Your task to perform on an android device: Open calendar and show me the second week of next month Image 0: 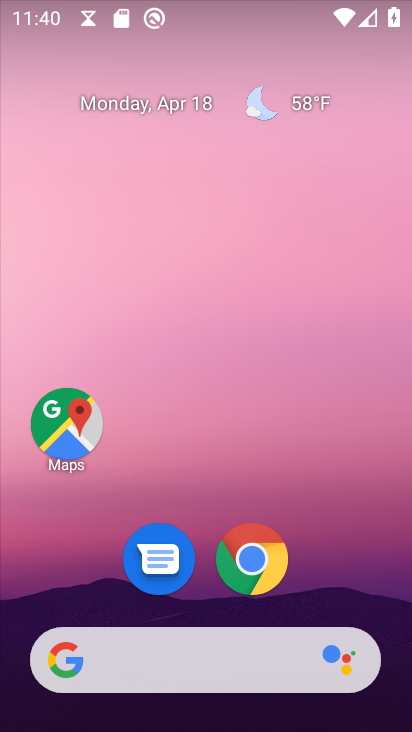
Step 0: drag from (348, 536) to (288, 47)
Your task to perform on an android device: Open calendar and show me the second week of next month Image 1: 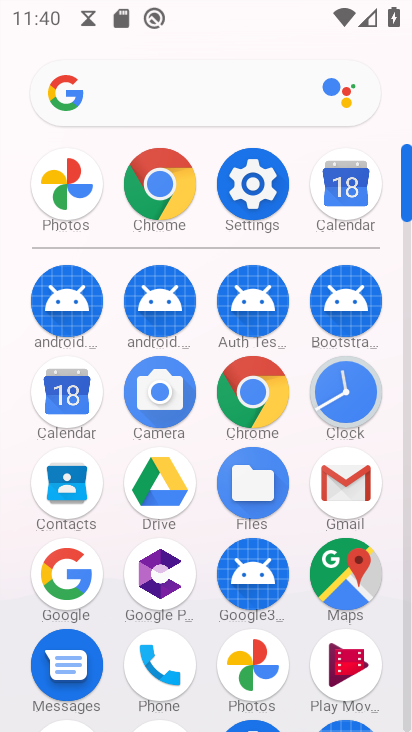
Step 1: click (346, 194)
Your task to perform on an android device: Open calendar and show me the second week of next month Image 2: 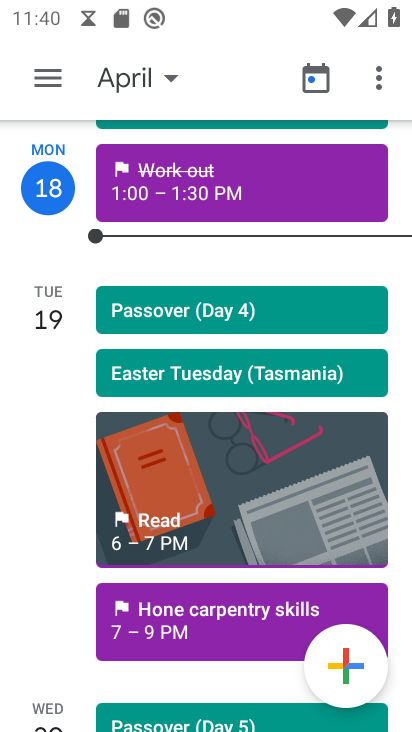
Step 2: click (49, 82)
Your task to perform on an android device: Open calendar and show me the second week of next month Image 3: 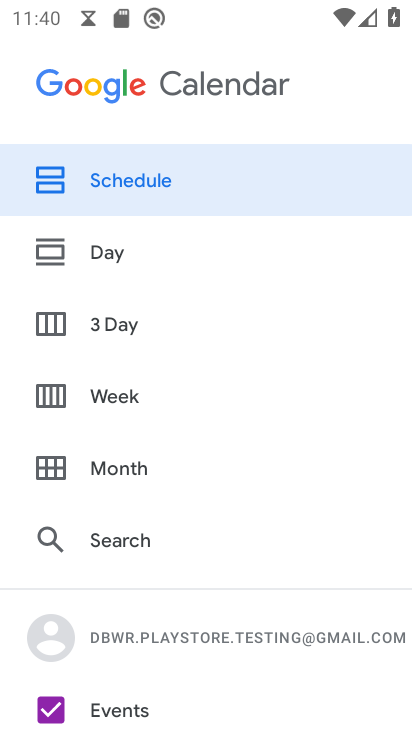
Step 3: click (105, 474)
Your task to perform on an android device: Open calendar and show me the second week of next month Image 4: 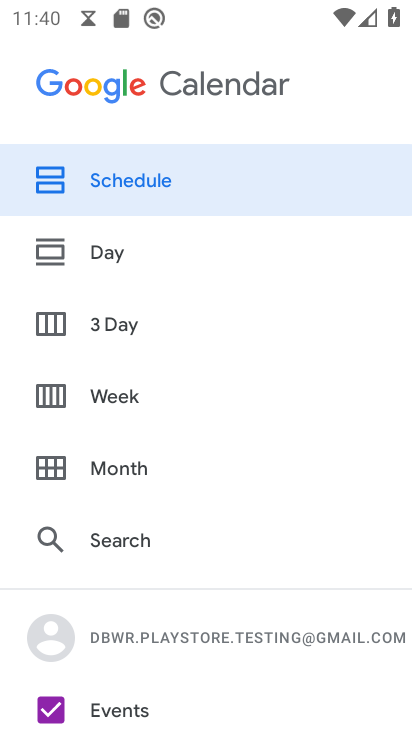
Step 4: click (47, 472)
Your task to perform on an android device: Open calendar and show me the second week of next month Image 5: 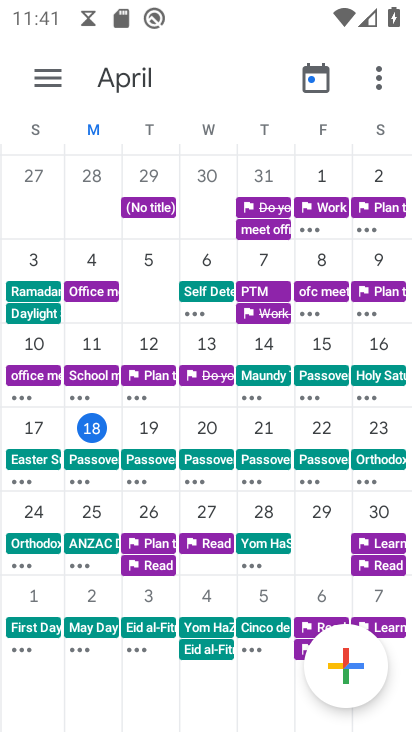
Step 5: task complete